Your task to perform on an android device: turn off javascript in the chrome app Image 0: 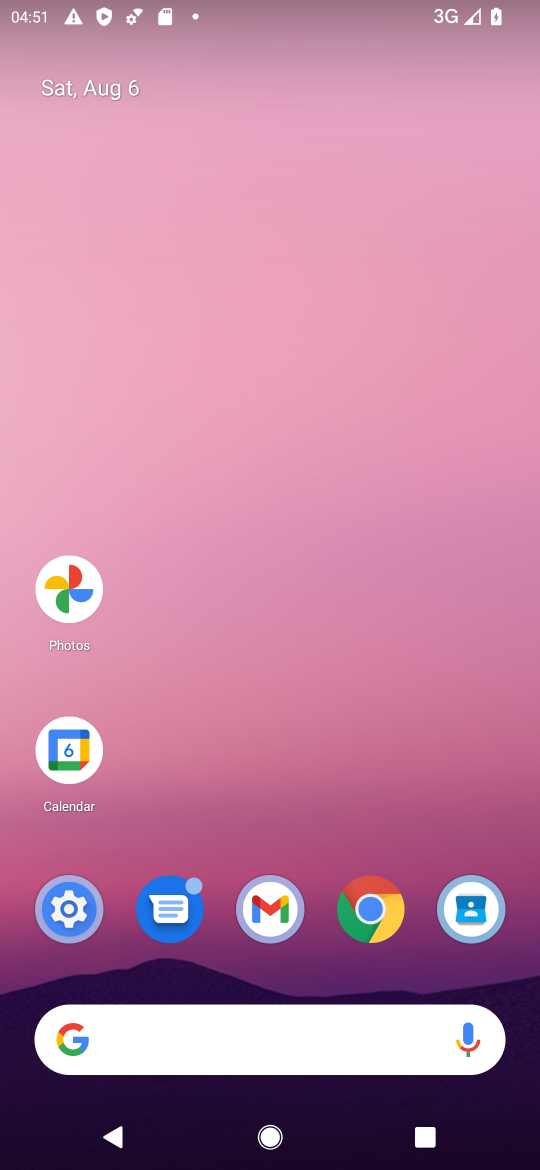
Step 0: click (373, 901)
Your task to perform on an android device: turn off javascript in the chrome app Image 1: 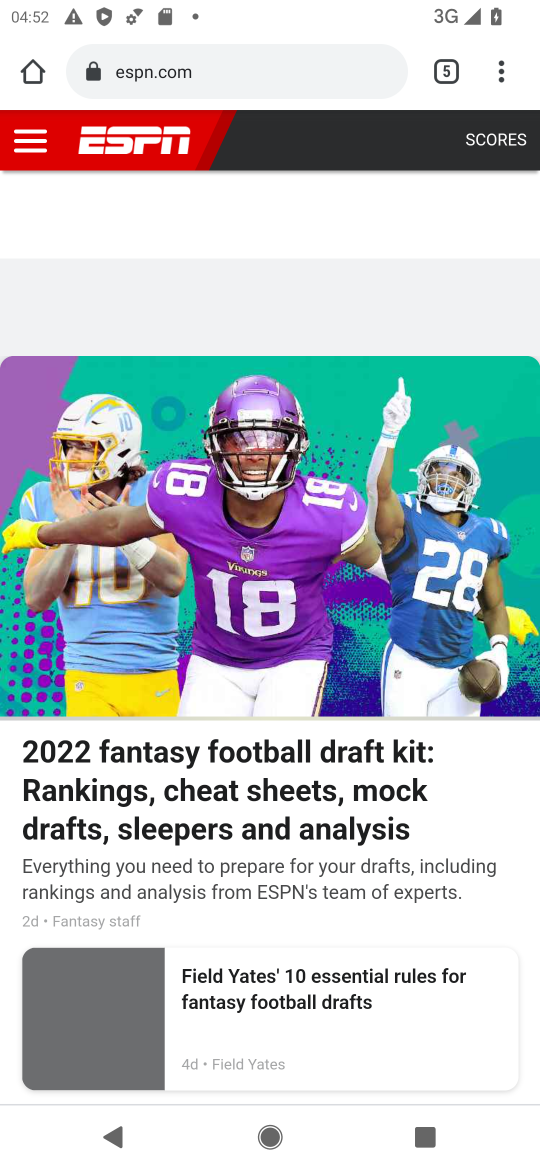
Step 1: click (498, 71)
Your task to perform on an android device: turn off javascript in the chrome app Image 2: 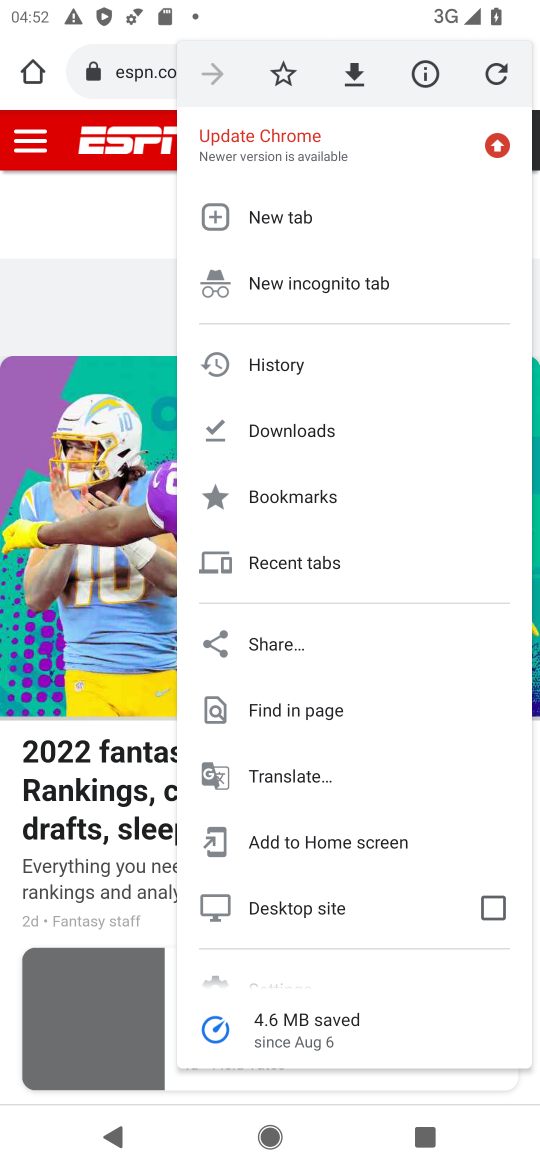
Step 2: drag from (372, 793) to (410, 206)
Your task to perform on an android device: turn off javascript in the chrome app Image 3: 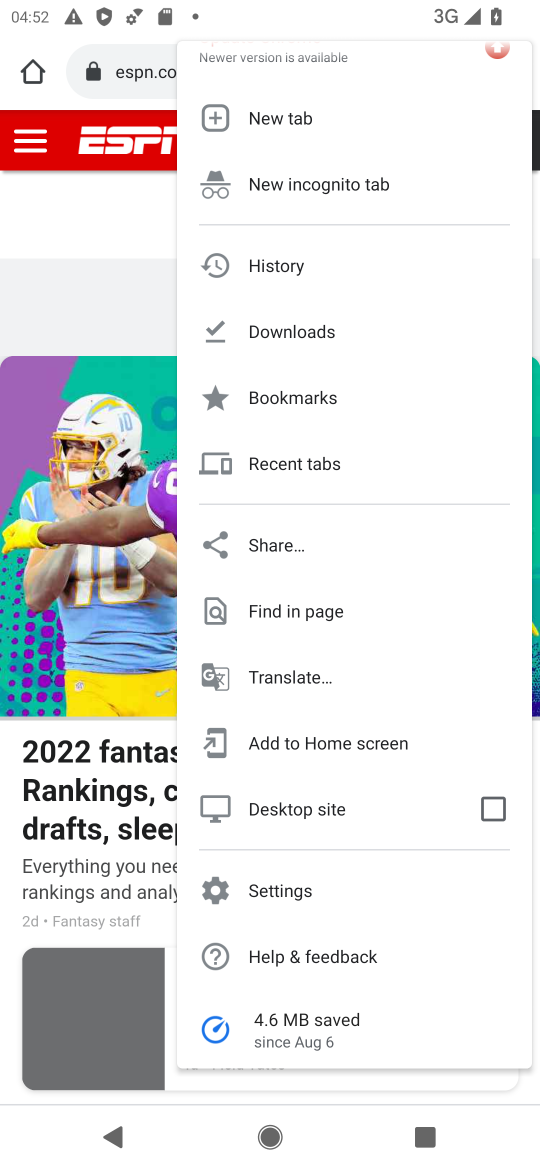
Step 3: click (279, 886)
Your task to perform on an android device: turn off javascript in the chrome app Image 4: 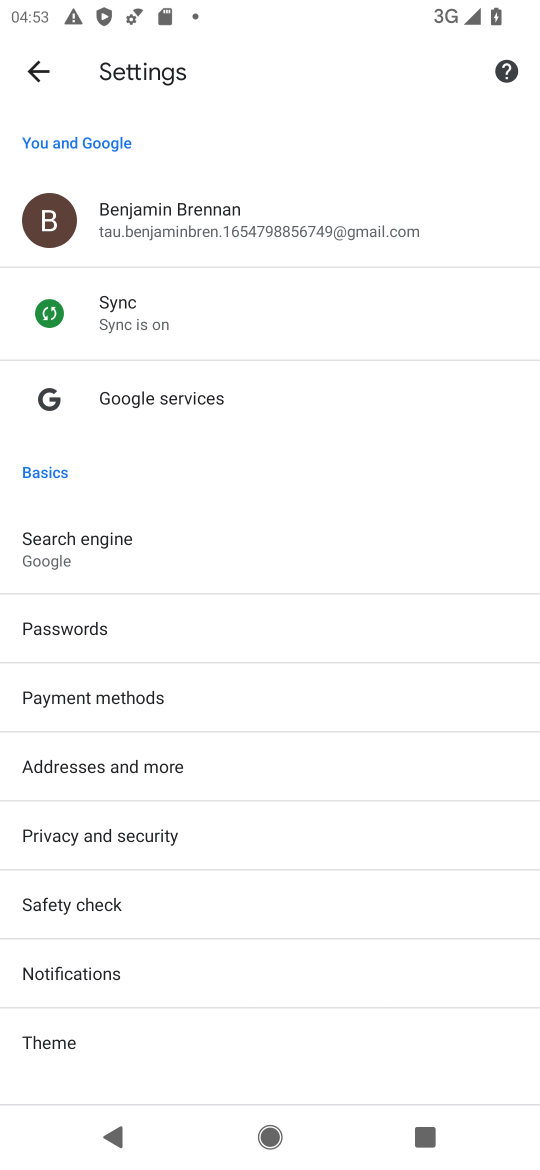
Step 4: drag from (241, 963) to (229, 438)
Your task to perform on an android device: turn off javascript in the chrome app Image 5: 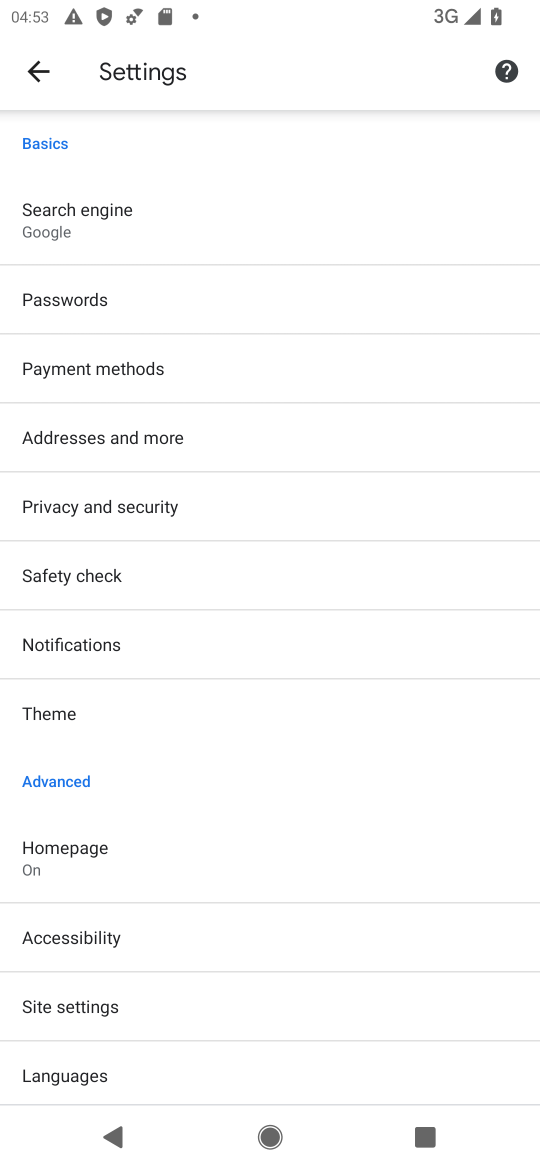
Step 5: click (88, 1002)
Your task to perform on an android device: turn off javascript in the chrome app Image 6: 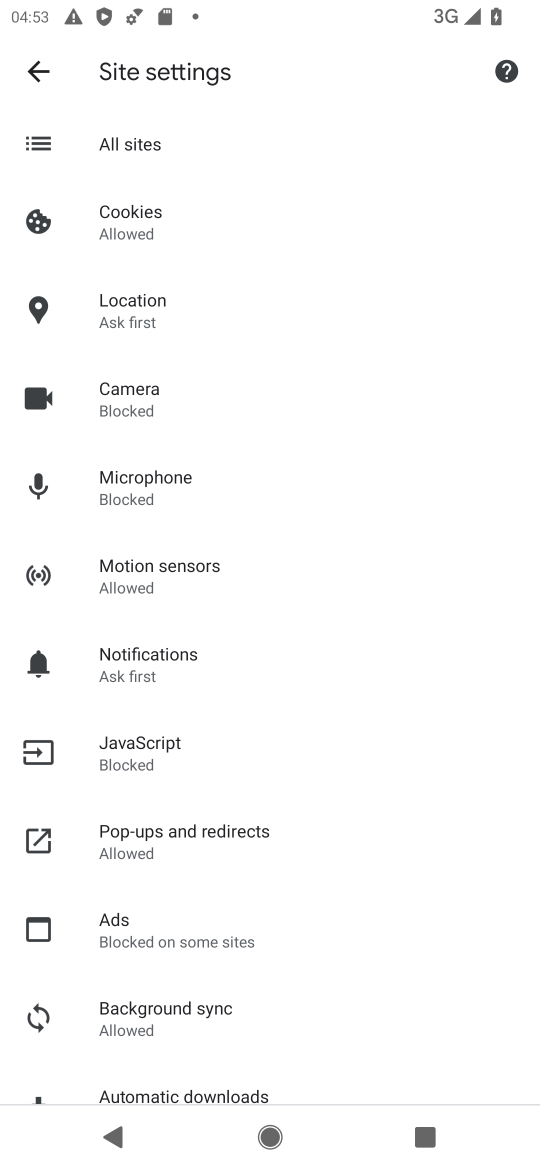
Step 6: click (144, 741)
Your task to perform on an android device: turn off javascript in the chrome app Image 7: 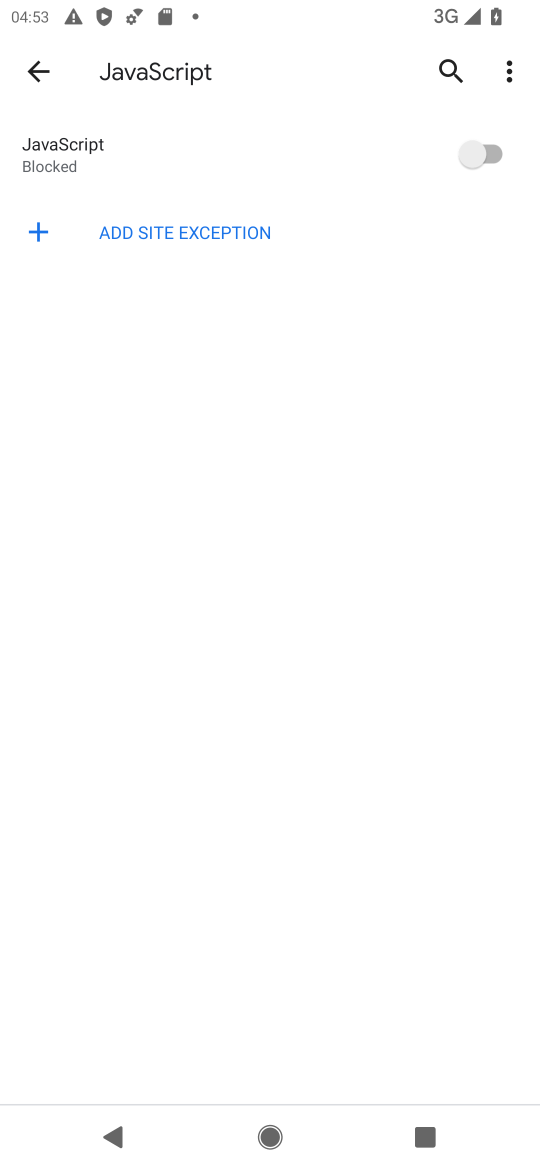
Step 7: task complete